Your task to perform on an android device: Open sound settings Image 0: 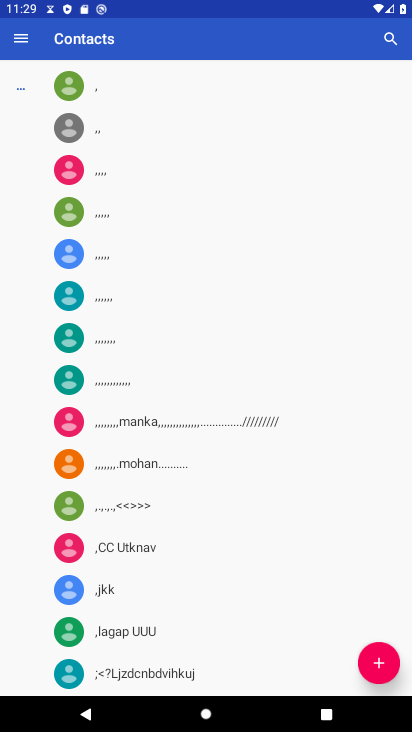
Step 0: press home button
Your task to perform on an android device: Open sound settings Image 1: 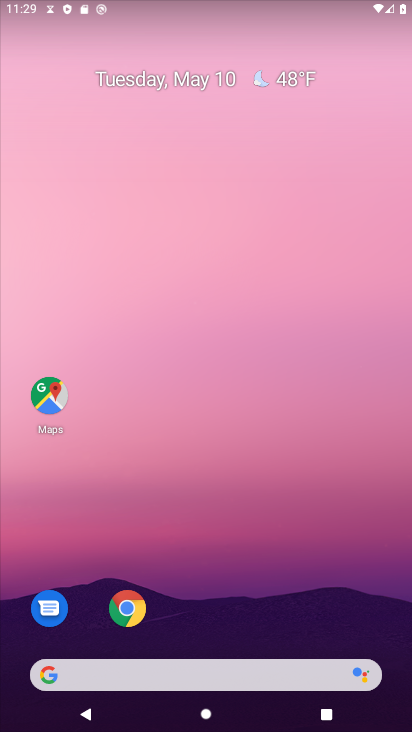
Step 1: drag from (199, 620) to (166, 196)
Your task to perform on an android device: Open sound settings Image 2: 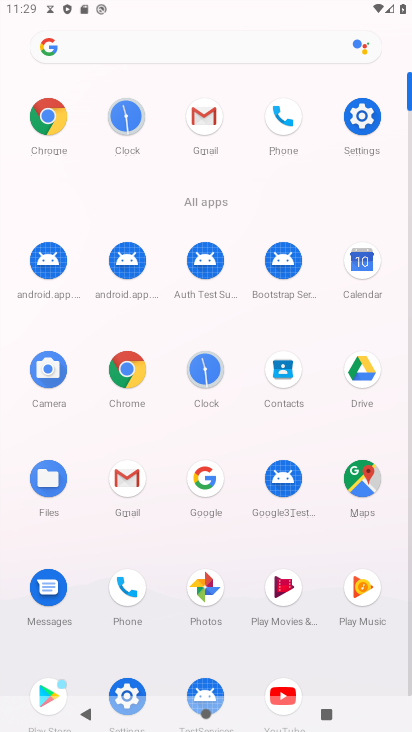
Step 2: click (365, 121)
Your task to perform on an android device: Open sound settings Image 3: 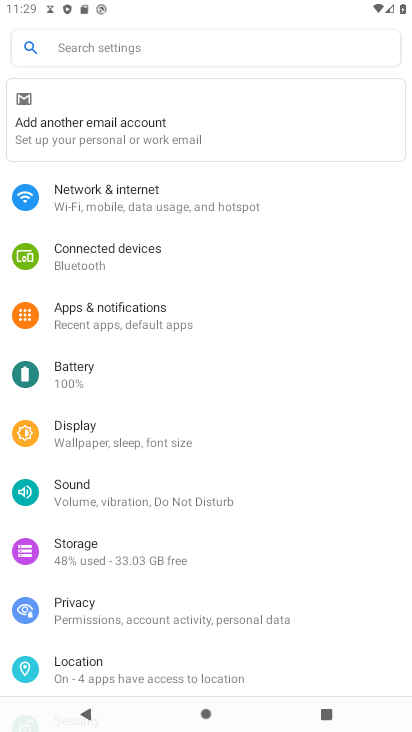
Step 3: click (115, 496)
Your task to perform on an android device: Open sound settings Image 4: 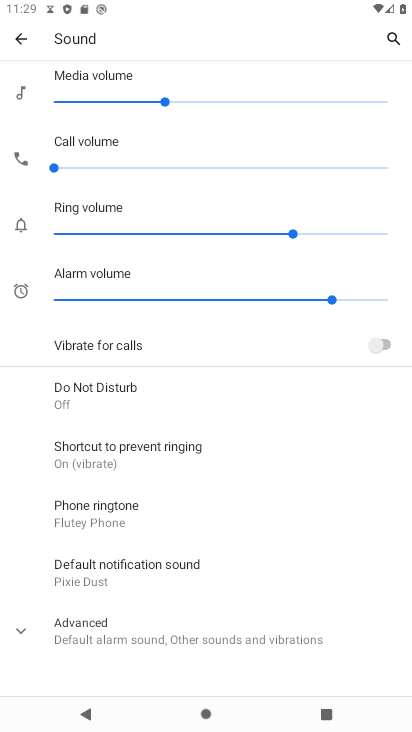
Step 4: click (103, 632)
Your task to perform on an android device: Open sound settings Image 5: 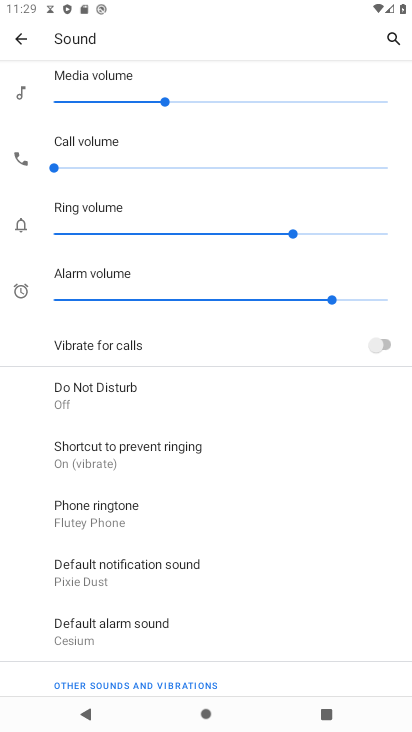
Step 5: task complete